Your task to perform on an android device: toggle improve location accuracy Image 0: 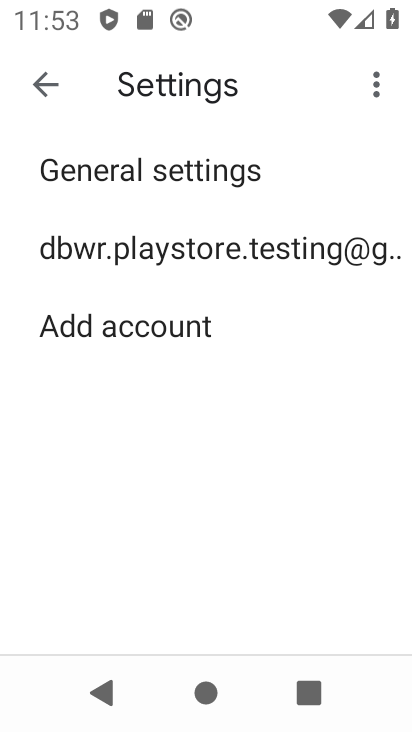
Step 0: press home button
Your task to perform on an android device: toggle improve location accuracy Image 1: 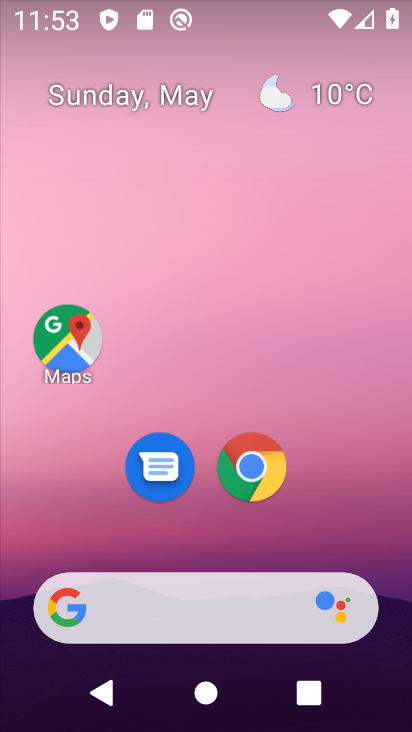
Step 1: drag from (388, 549) to (373, 98)
Your task to perform on an android device: toggle improve location accuracy Image 2: 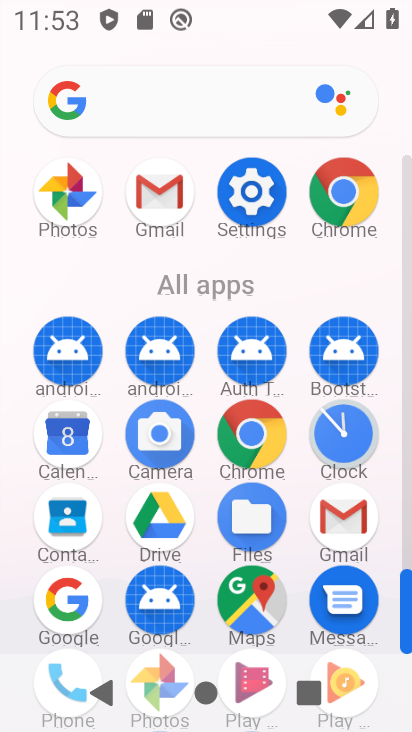
Step 2: click (254, 196)
Your task to perform on an android device: toggle improve location accuracy Image 3: 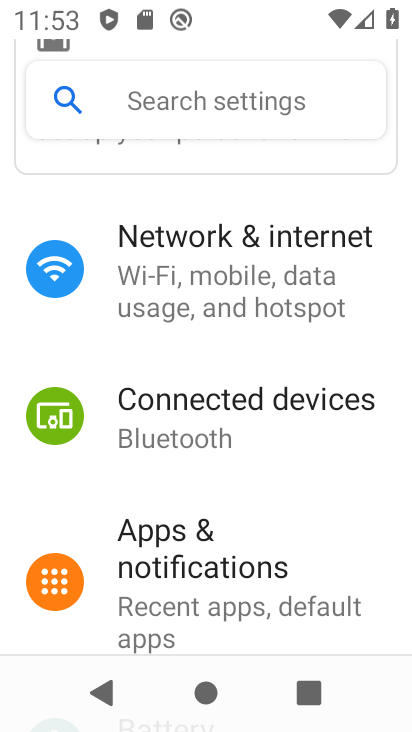
Step 3: drag from (363, 637) to (364, 277)
Your task to perform on an android device: toggle improve location accuracy Image 4: 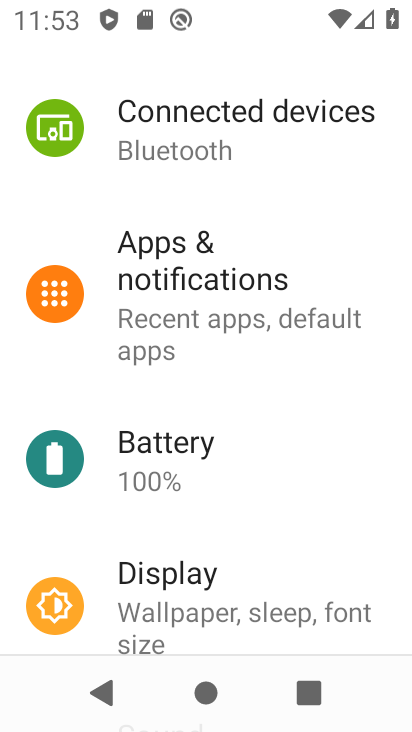
Step 4: drag from (364, 592) to (377, 154)
Your task to perform on an android device: toggle improve location accuracy Image 5: 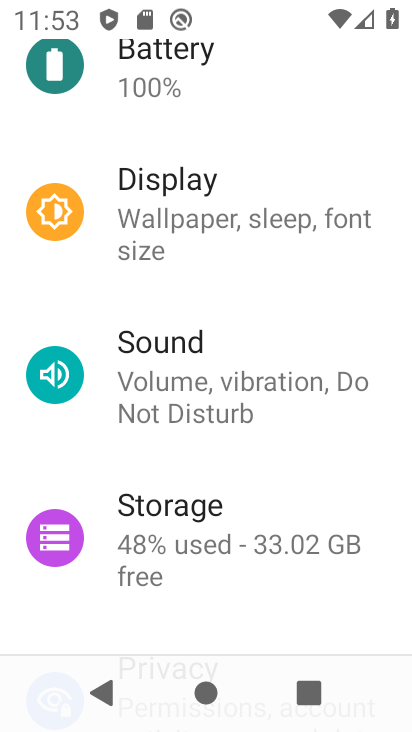
Step 5: drag from (315, 582) to (304, 283)
Your task to perform on an android device: toggle improve location accuracy Image 6: 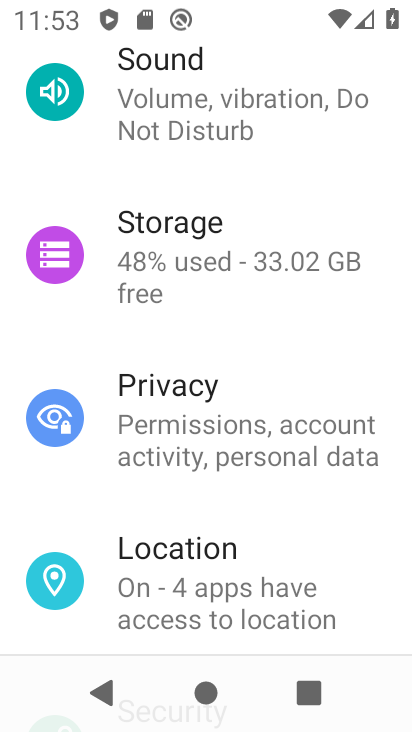
Step 6: drag from (281, 535) to (282, 241)
Your task to perform on an android device: toggle improve location accuracy Image 7: 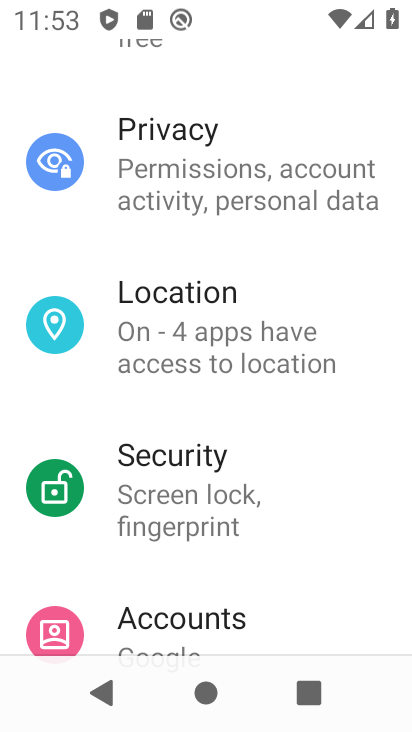
Step 7: click (258, 311)
Your task to perform on an android device: toggle improve location accuracy Image 8: 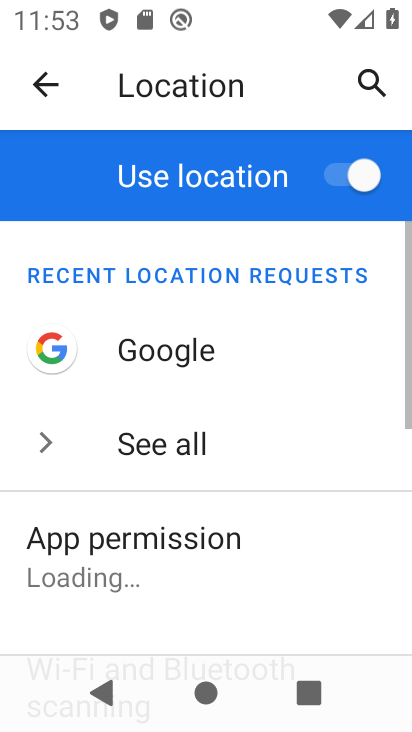
Step 8: drag from (300, 571) to (275, 214)
Your task to perform on an android device: toggle improve location accuracy Image 9: 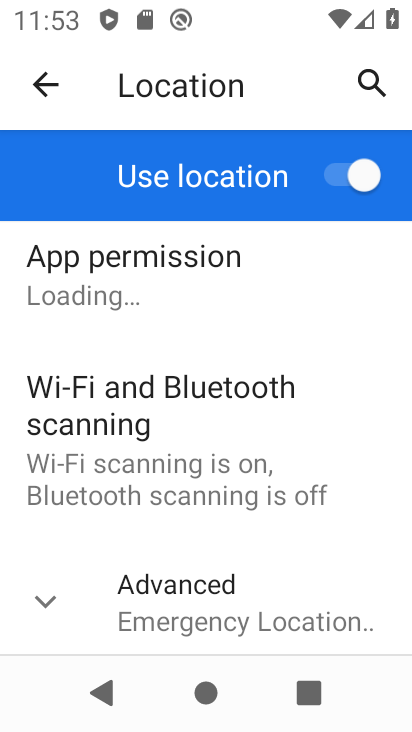
Step 9: drag from (348, 590) to (283, 271)
Your task to perform on an android device: toggle improve location accuracy Image 10: 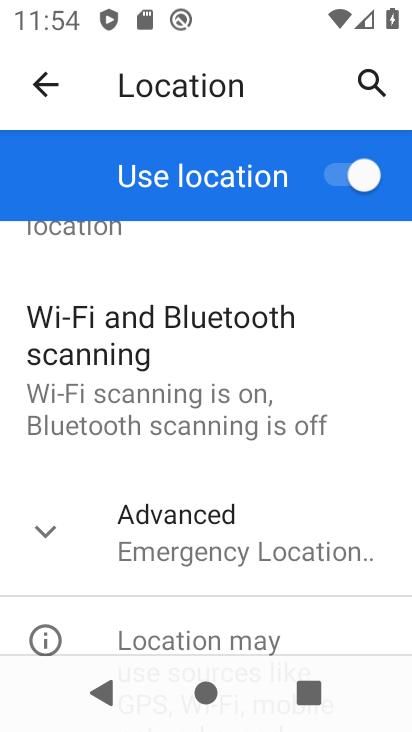
Step 10: click (297, 529)
Your task to perform on an android device: toggle improve location accuracy Image 11: 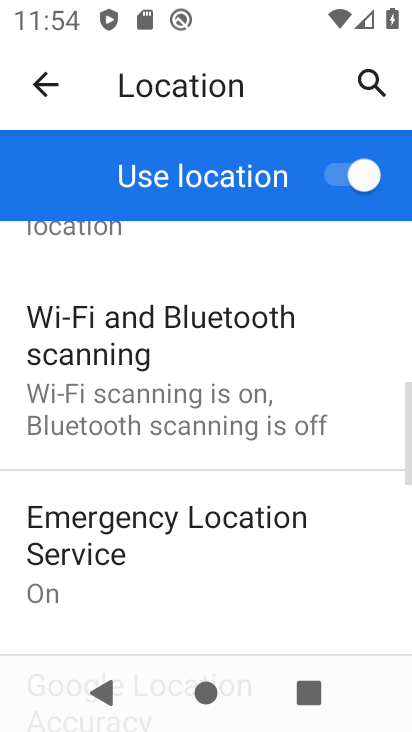
Step 11: drag from (307, 587) to (343, 312)
Your task to perform on an android device: toggle improve location accuracy Image 12: 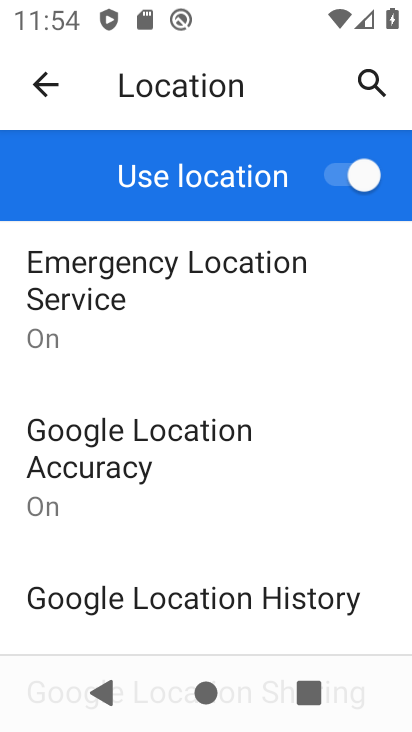
Step 12: click (209, 465)
Your task to perform on an android device: toggle improve location accuracy Image 13: 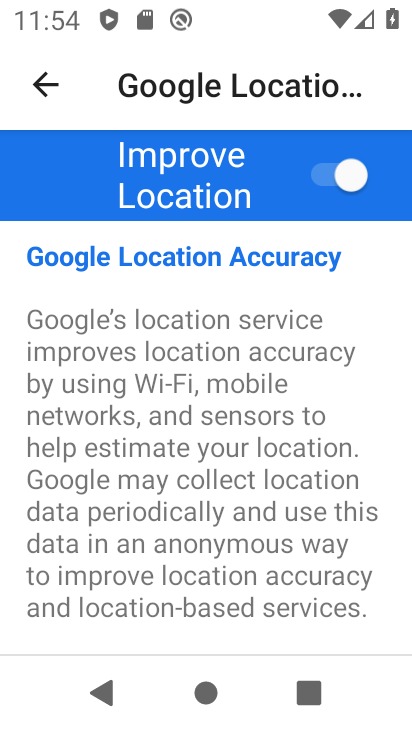
Step 13: drag from (309, 563) to (358, 274)
Your task to perform on an android device: toggle improve location accuracy Image 14: 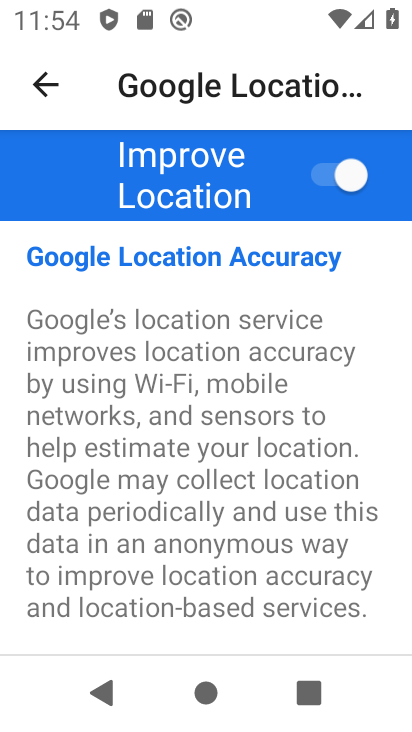
Step 14: click (334, 175)
Your task to perform on an android device: toggle improve location accuracy Image 15: 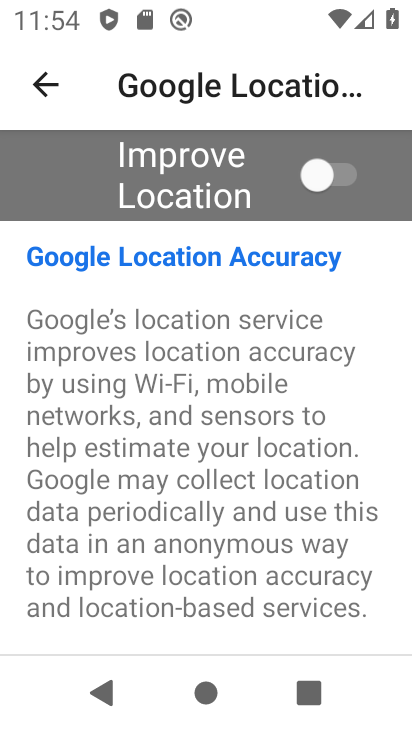
Step 15: task complete